Your task to perform on an android device: Open my contact list Image 0: 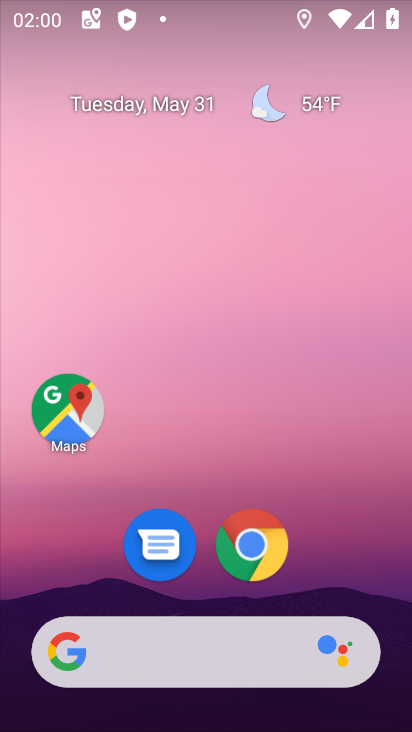
Step 0: drag from (381, 575) to (317, 12)
Your task to perform on an android device: Open my contact list Image 1: 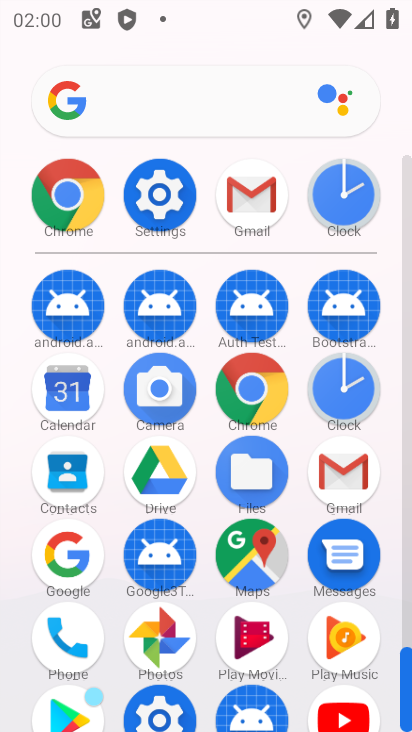
Step 1: click (73, 482)
Your task to perform on an android device: Open my contact list Image 2: 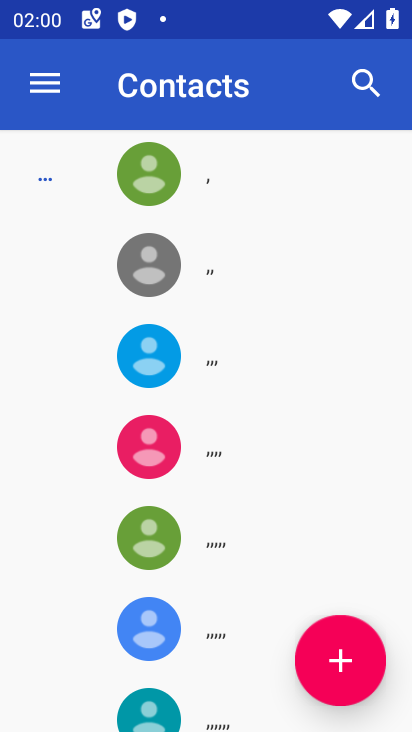
Step 2: task complete